Your task to perform on an android device: What is the news today? Image 0: 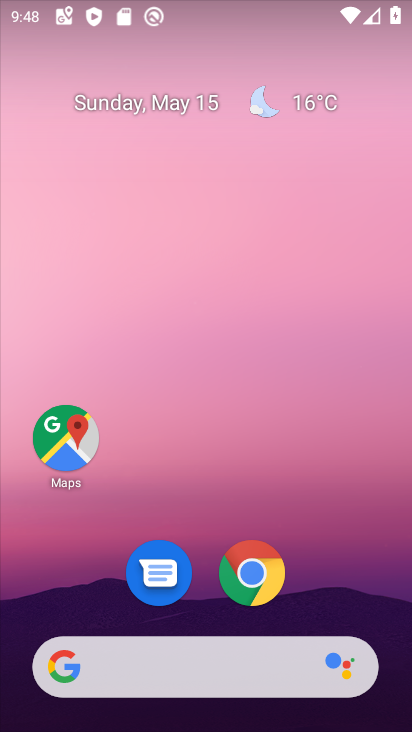
Step 0: press home button
Your task to perform on an android device: What is the news today? Image 1: 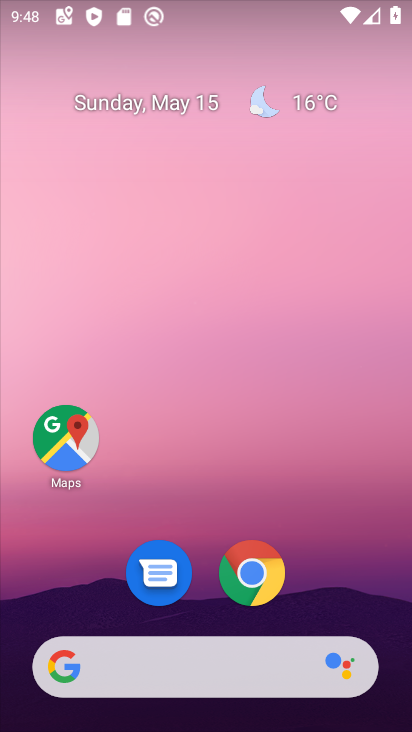
Step 1: click (259, 567)
Your task to perform on an android device: What is the news today? Image 2: 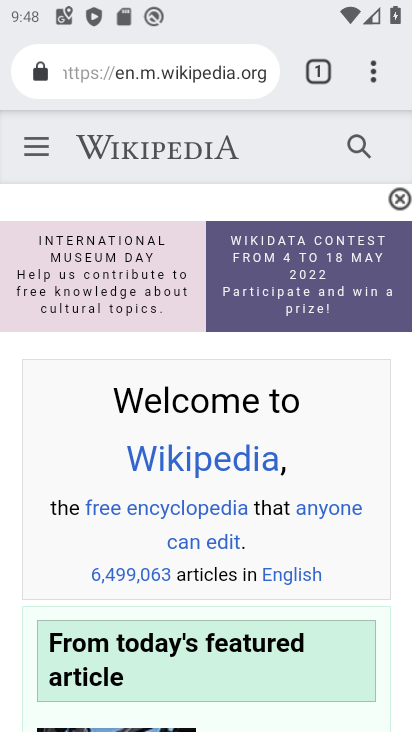
Step 2: click (153, 78)
Your task to perform on an android device: What is the news today? Image 3: 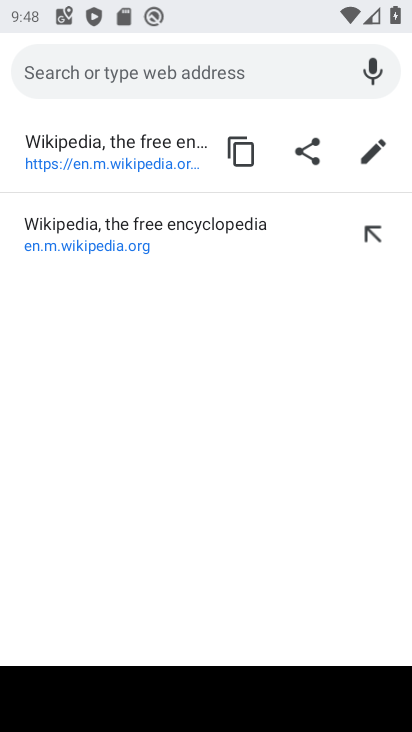
Step 3: type "What is the news today?"
Your task to perform on an android device: What is the news today? Image 4: 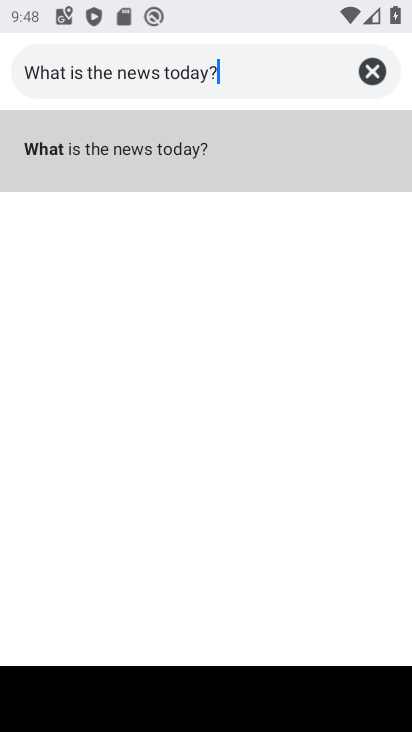
Step 4: click (113, 129)
Your task to perform on an android device: What is the news today? Image 5: 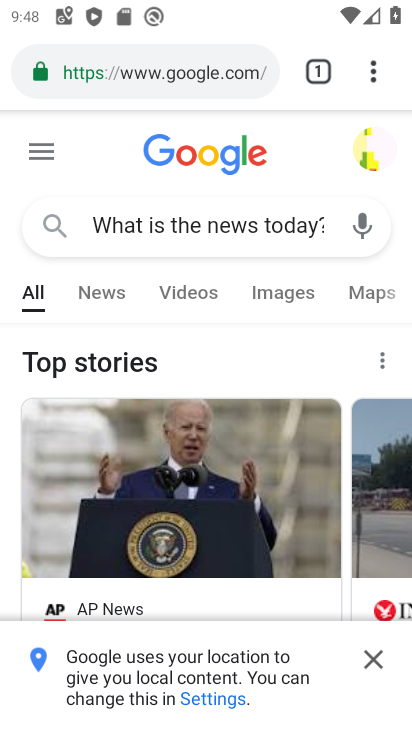
Step 5: task complete